Your task to perform on an android device: turn pop-ups off in chrome Image 0: 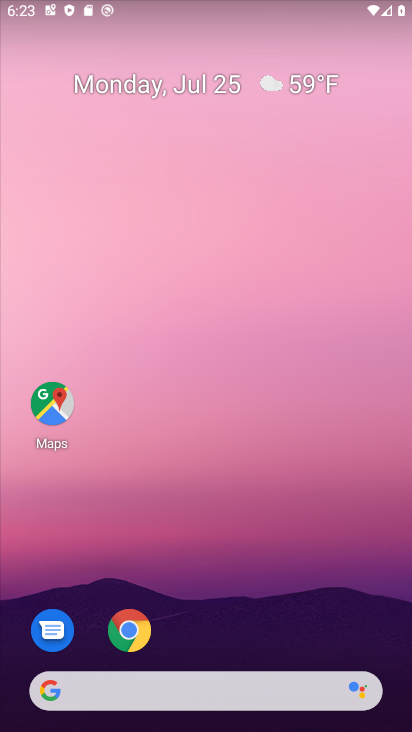
Step 0: click (124, 629)
Your task to perform on an android device: turn pop-ups off in chrome Image 1: 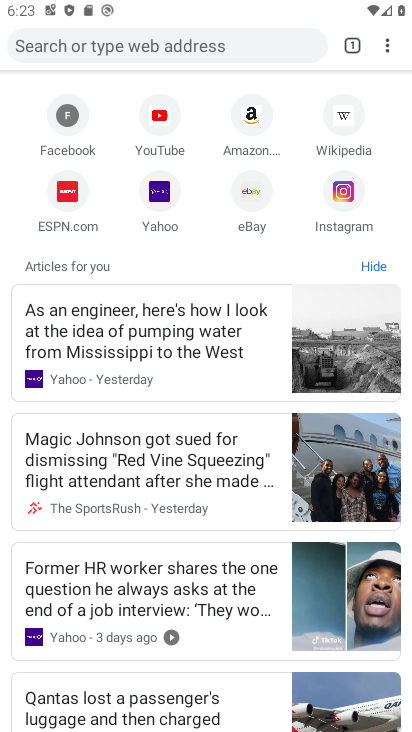
Step 1: click (390, 50)
Your task to perform on an android device: turn pop-ups off in chrome Image 2: 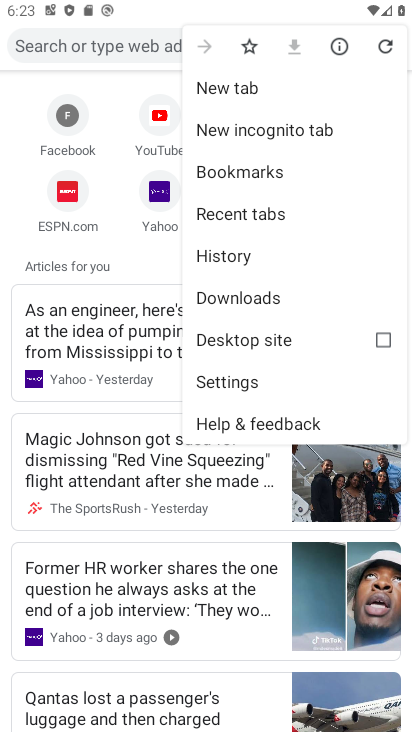
Step 2: click (231, 378)
Your task to perform on an android device: turn pop-ups off in chrome Image 3: 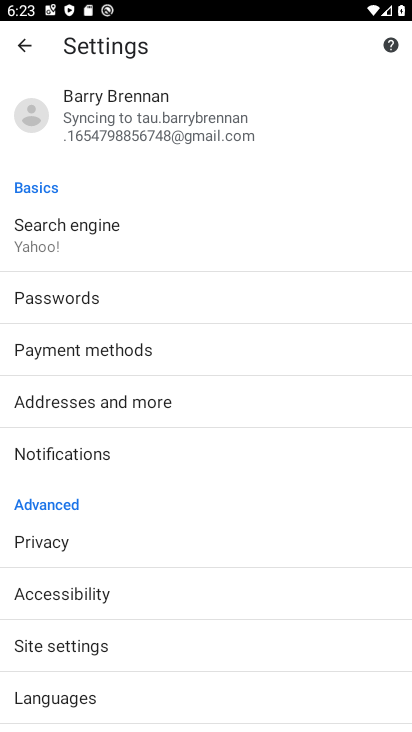
Step 3: click (65, 644)
Your task to perform on an android device: turn pop-ups off in chrome Image 4: 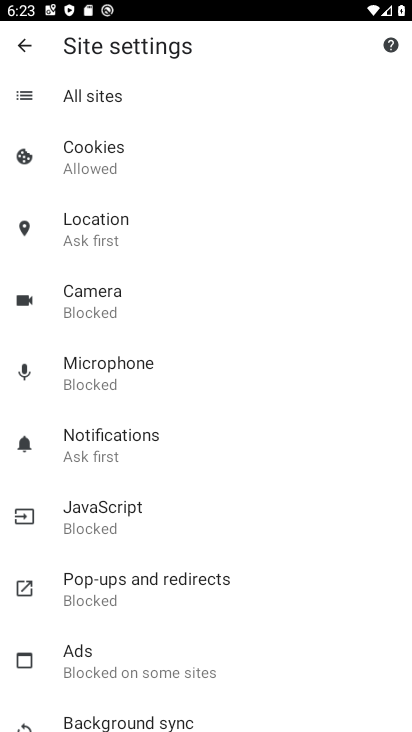
Step 4: click (132, 608)
Your task to perform on an android device: turn pop-ups off in chrome Image 5: 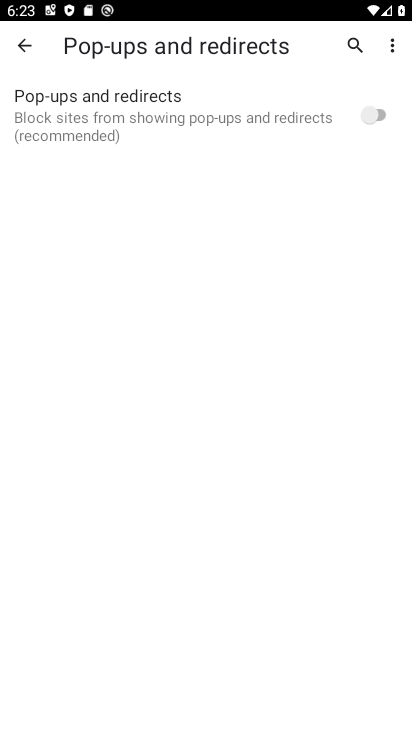
Step 5: task complete